Your task to perform on an android device: turn off wifi Image 0: 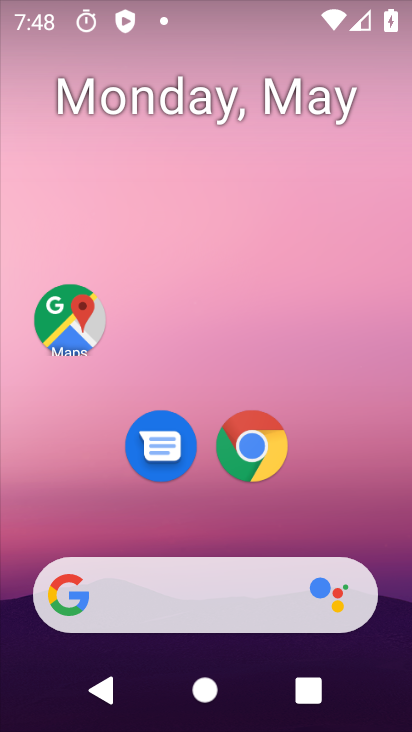
Step 0: drag from (346, 554) to (402, 41)
Your task to perform on an android device: turn off wifi Image 1: 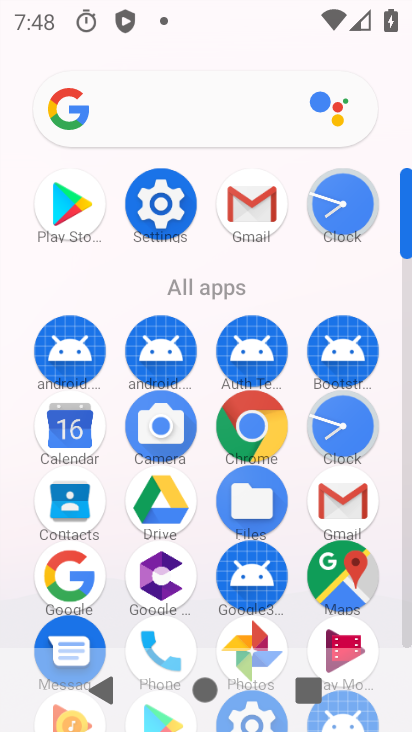
Step 1: click (159, 194)
Your task to perform on an android device: turn off wifi Image 2: 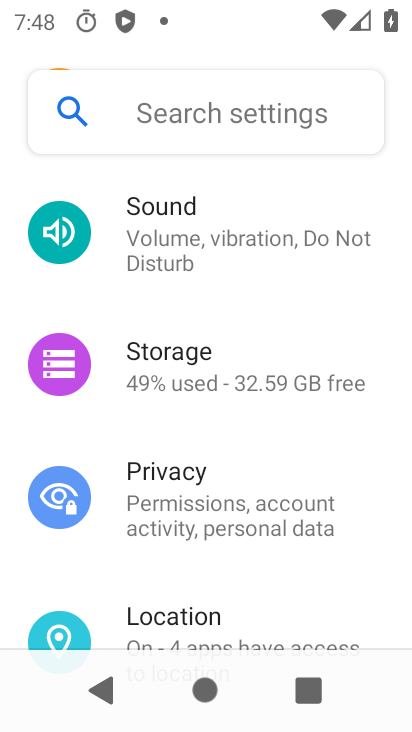
Step 2: drag from (362, 213) to (325, 636)
Your task to perform on an android device: turn off wifi Image 3: 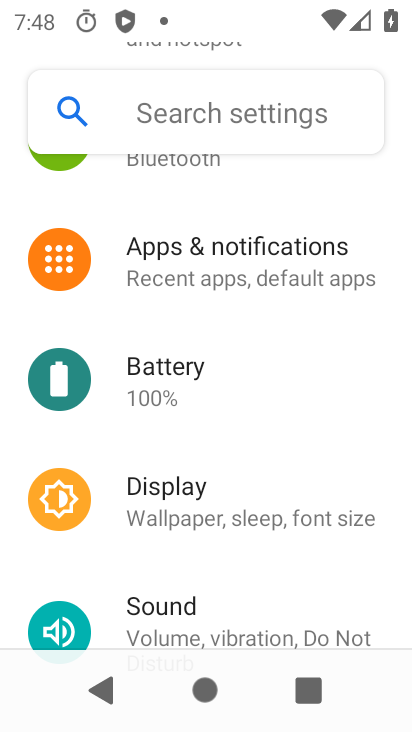
Step 3: drag from (319, 282) to (320, 640)
Your task to perform on an android device: turn off wifi Image 4: 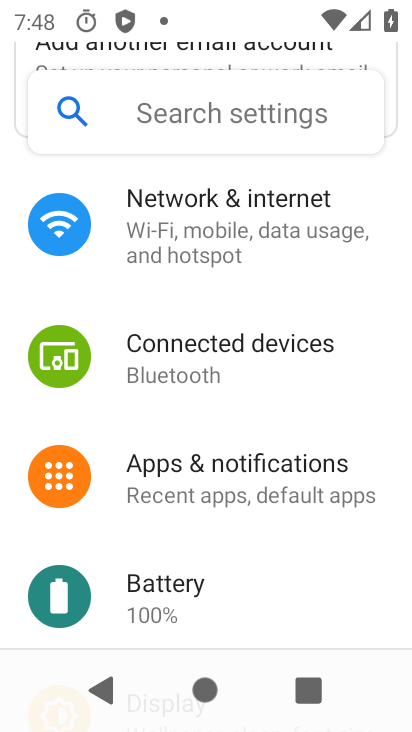
Step 4: click (235, 237)
Your task to perform on an android device: turn off wifi Image 5: 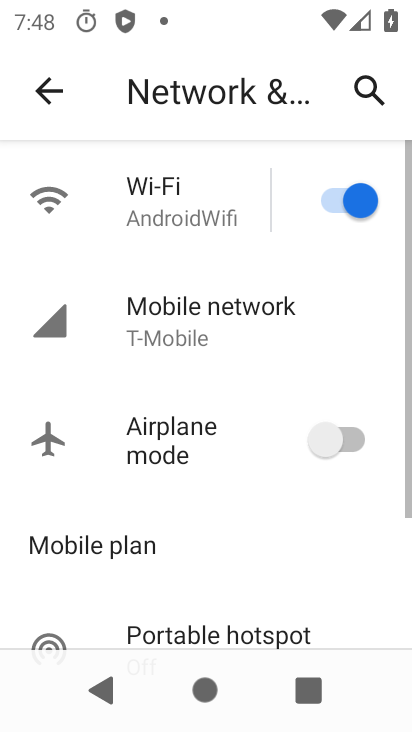
Step 5: click (360, 199)
Your task to perform on an android device: turn off wifi Image 6: 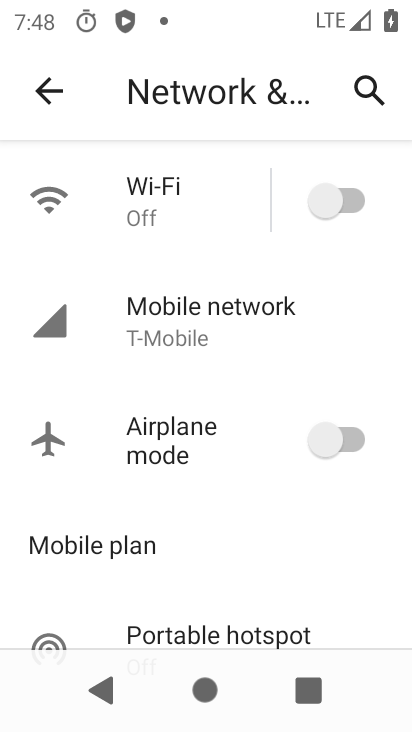
Step 6: task complete